Your task to perform on an android device: turn on data saver in the chrome app Image 0: 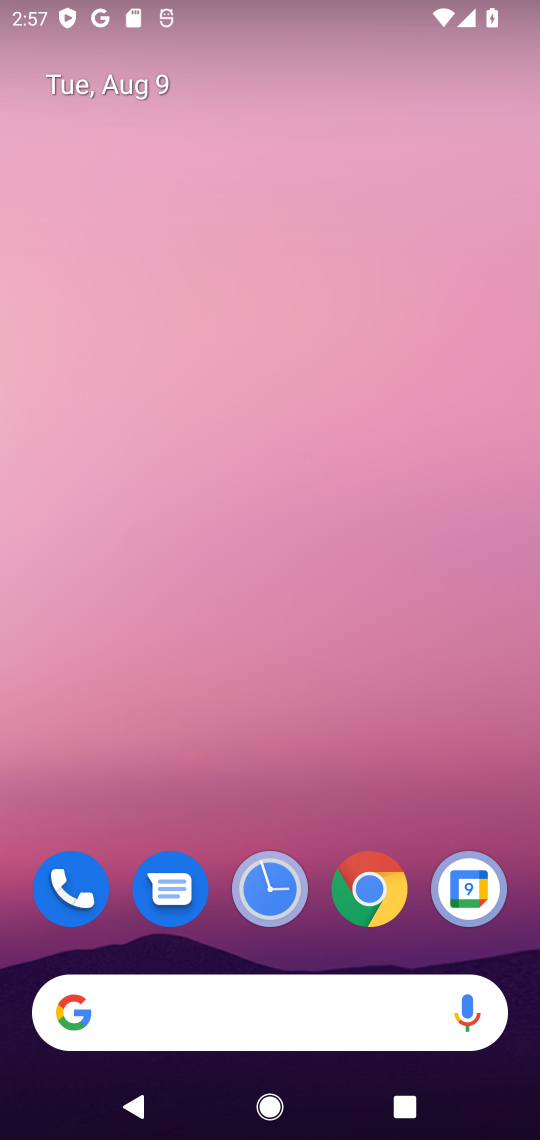
Step 0: click (375, 892)
Your task to perform on an android device: turn on data saver in the chrome app Image 1: 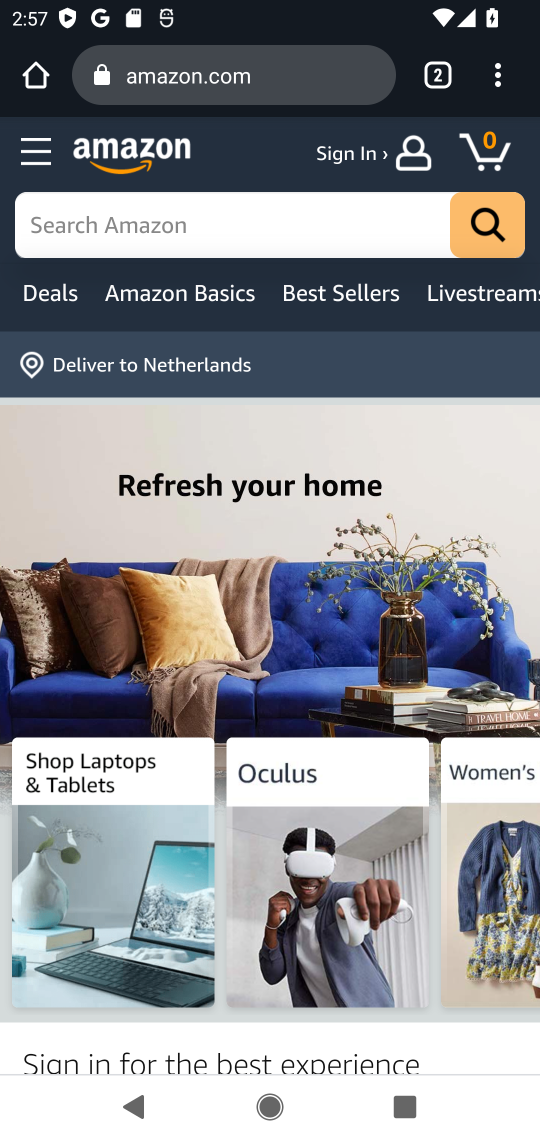
Step 1: click (504, 85)
Your task to perform on an android device: turn on data saver in the chrome app Image 2: 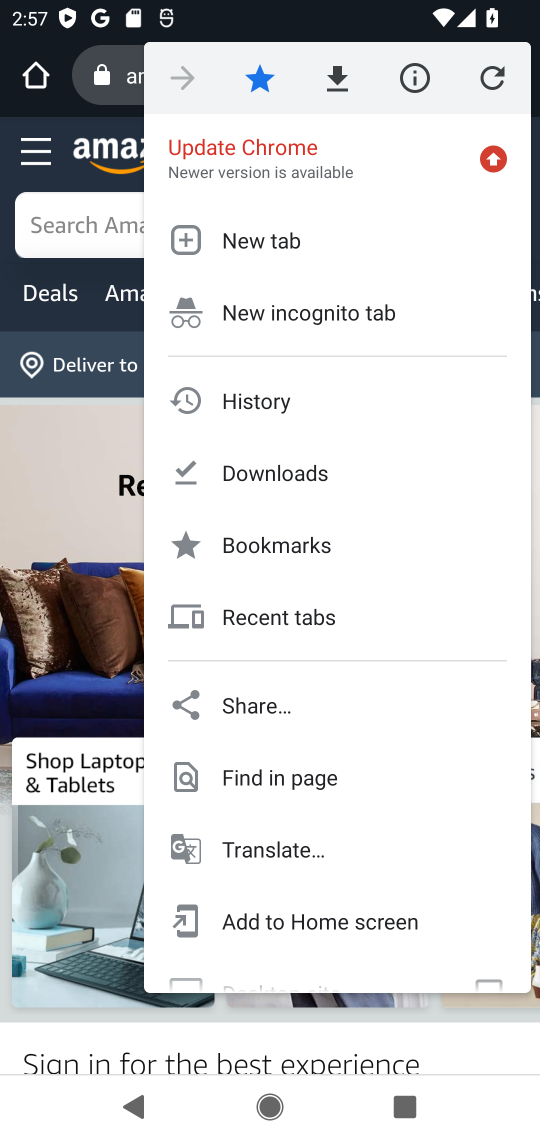
Step 2: drag from (340, 874) to (346, 308)
Your task to perform on an android device: turn on data saver in the chrome app Image 3: 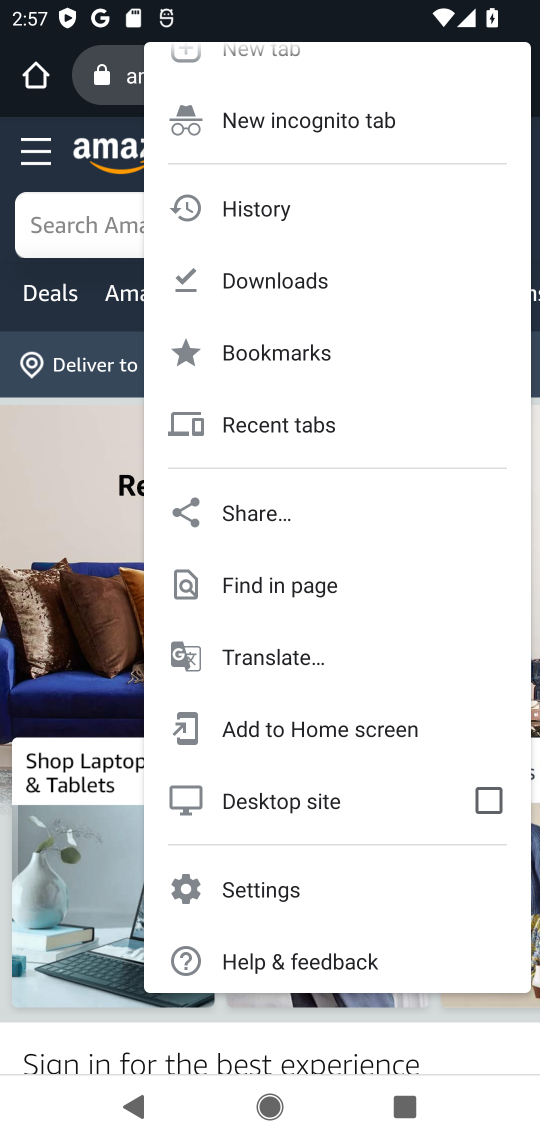
Step 3: click (280, 889)
Your task to perform on an android device: turn on data saver in the chrome app Image 4: 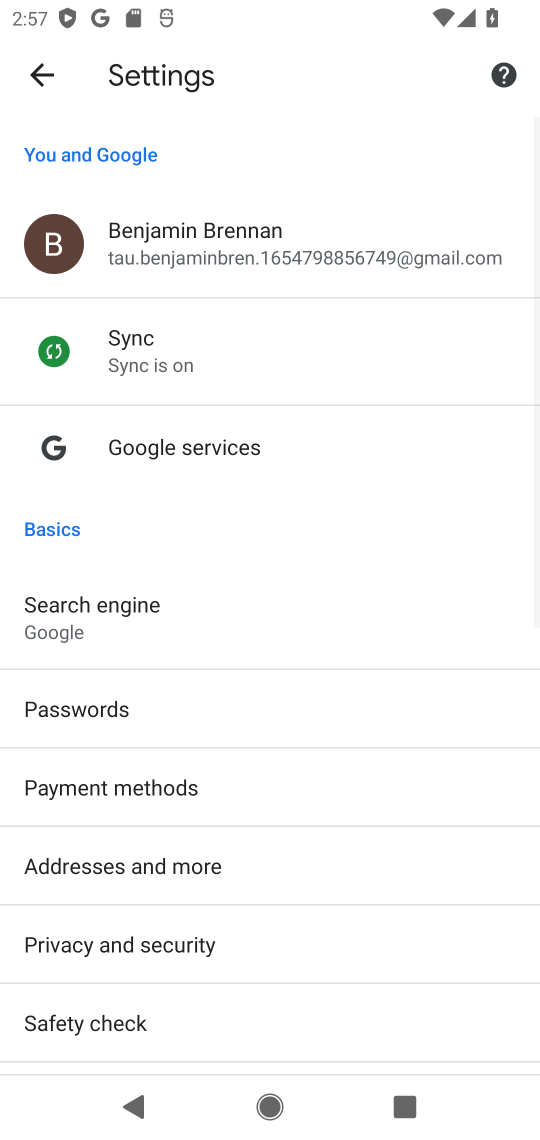
Step 4: drag from (301, 874) to (357, 263)
Your task to perform on an android device: turn on data saver in the chrome app Image 5: 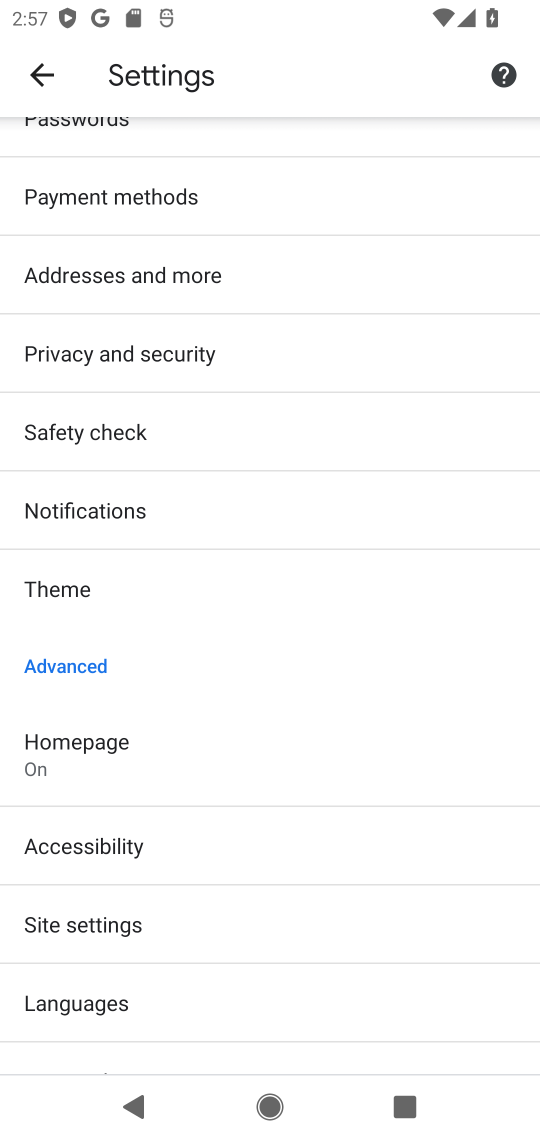
Step 5: drag from (282, 810) to (325, 266)
Your task to perform on an android device: turn on data saver in the chrome app Image 6: 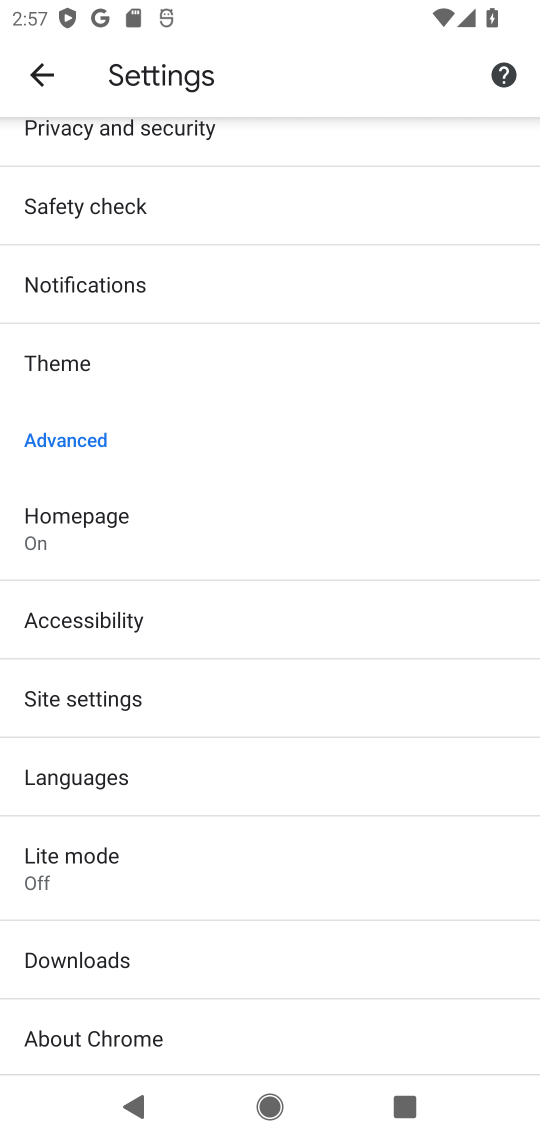
Step 6: click (202, 876)
Your task to perform on an android device: turn on data saver in the chrome app Image 7: 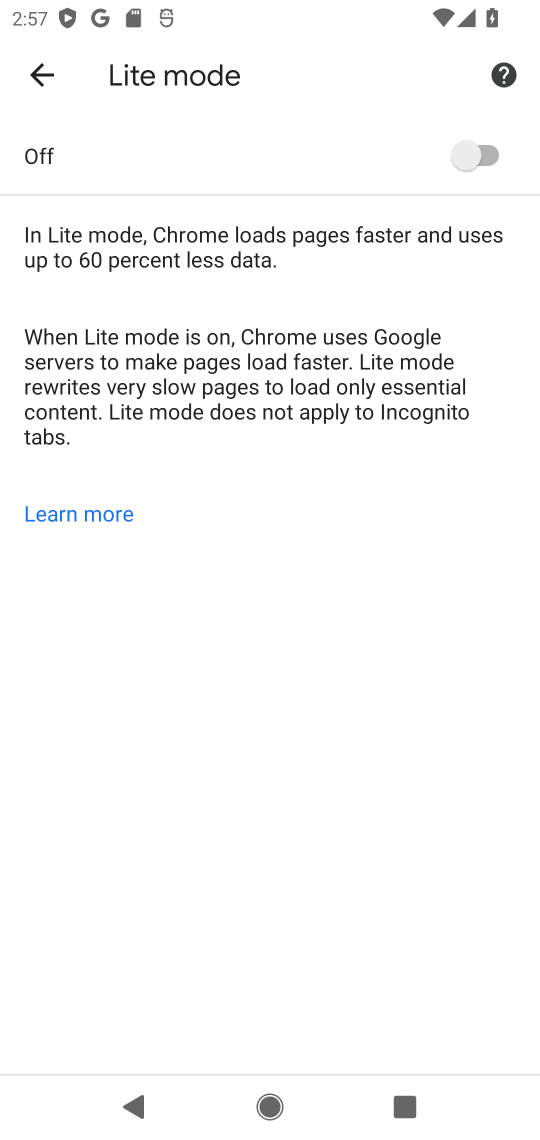
Step 7: click (473, 150)
Your task to perform on an android device: turn on data saver in the chrome app Image 8: 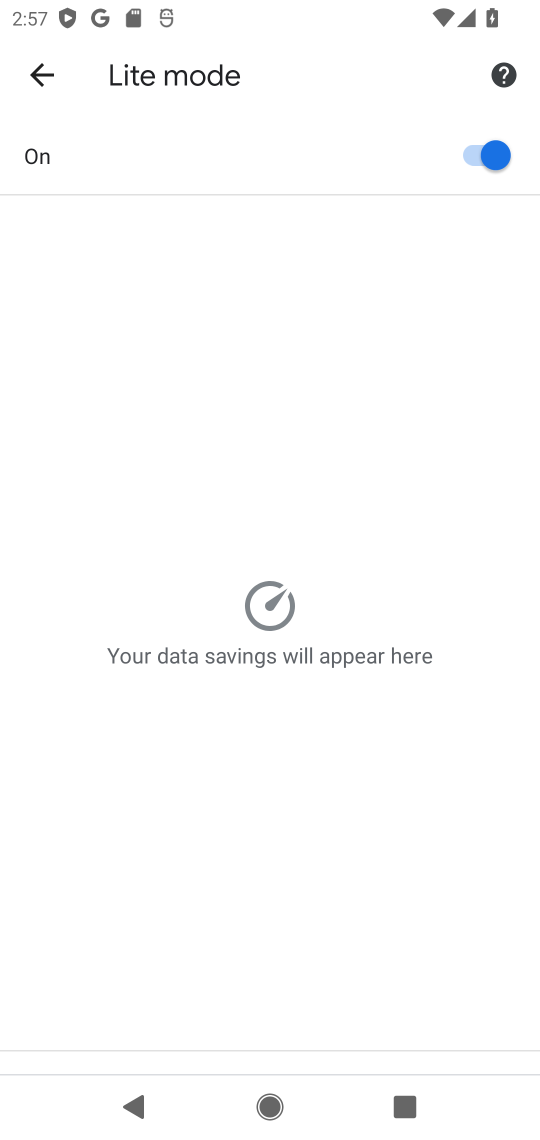
Step 8: task complete